Your task to perform on an android device: set the timer Image 0: 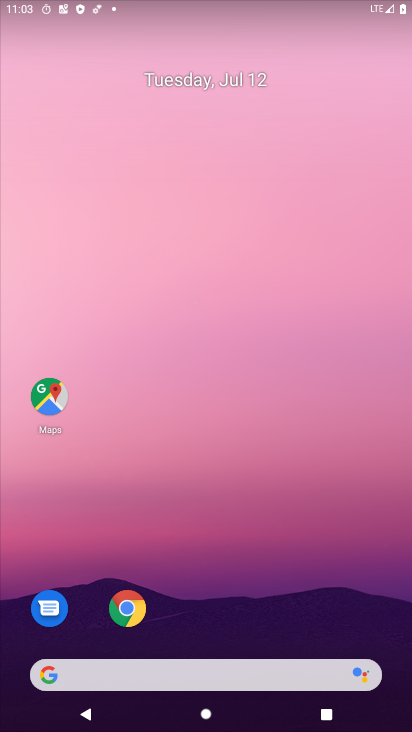
Step 0: drag from (296, 610) to (306, 127)
Your task to perform on an android device: set the timer Image 1: 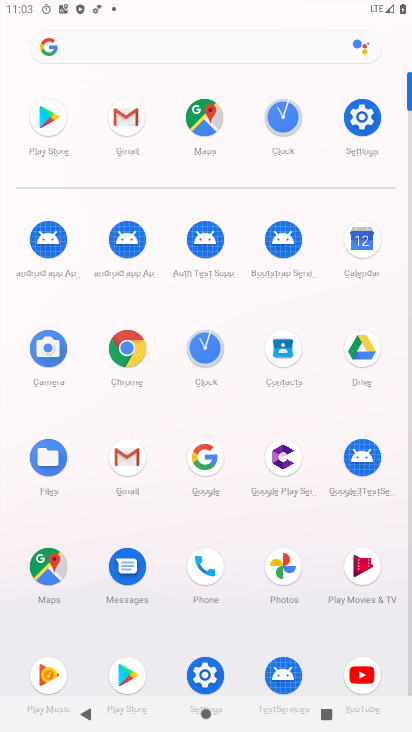
Step 1: click (281, 125)
Your task to perform on an android device: set the timer Image 2: 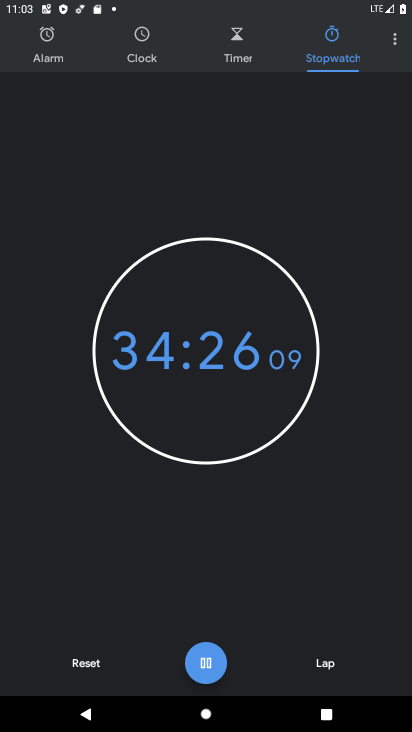
Step 2: click (217, 38)
Your task to perform on an android device: set the timer Image 3: 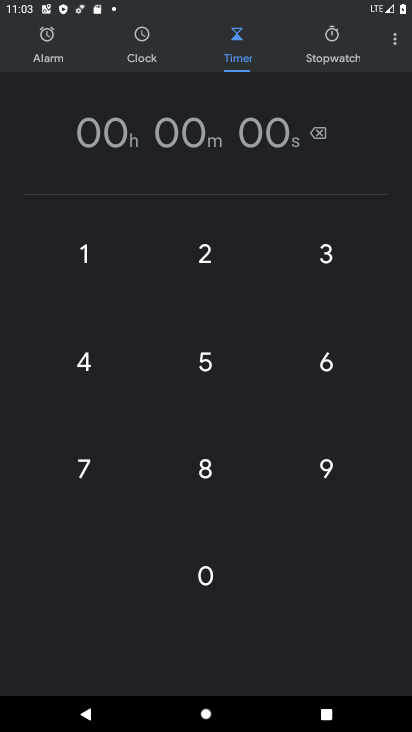
Step 3: click (100, 247)
Your task to perform on an android device: set the timer Image 4: 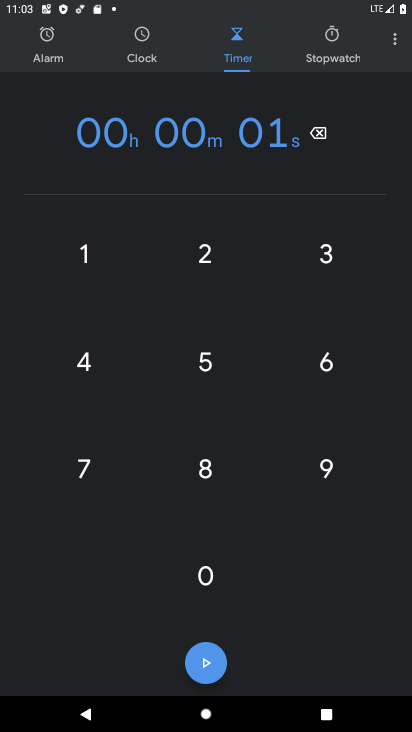
Step 4: click (207, 230)
Your task to perform on an android device: set the timer Image 5: 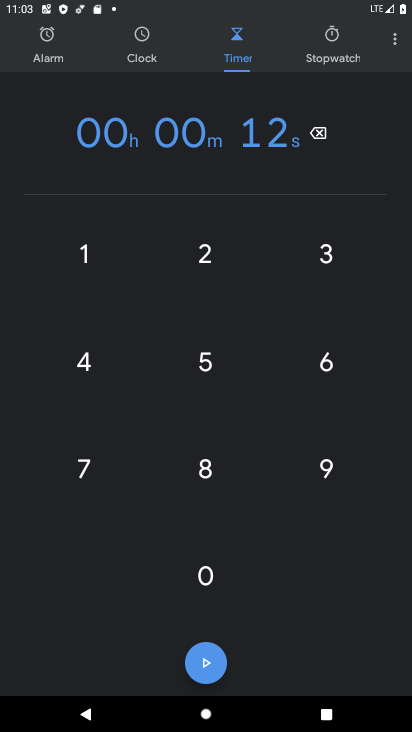
Step 5: click (198, 336)
Your task to perform on an android device: set the timer Image 6: 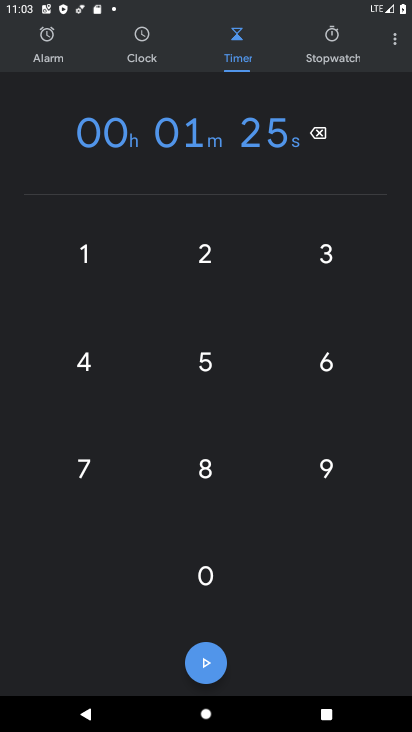
Step 6: click (104, 367)
Your task to perform on an android device: set the timer Image 7: 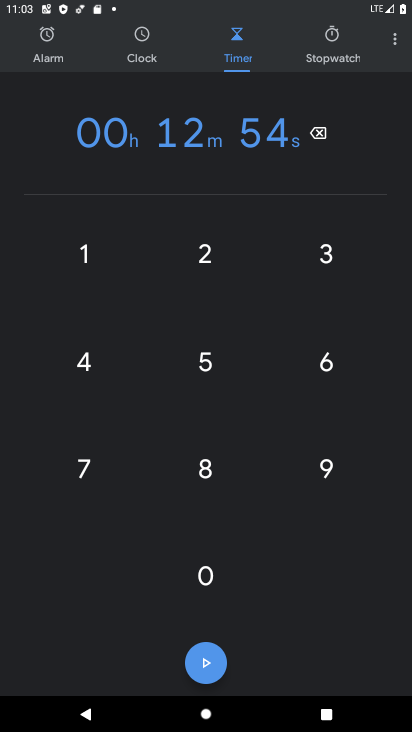
Step 7: click (188, 545)
Your task to perform on an android device: set the timer Image 8: 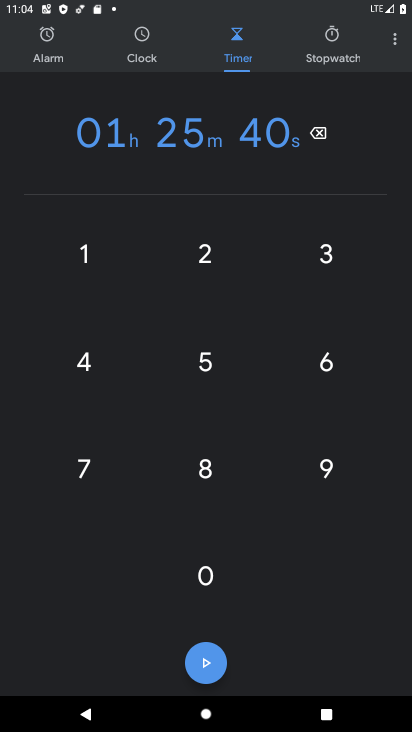
Step 8: click (206, 518)
Your task to perform on an android device: set the timer Image 9: 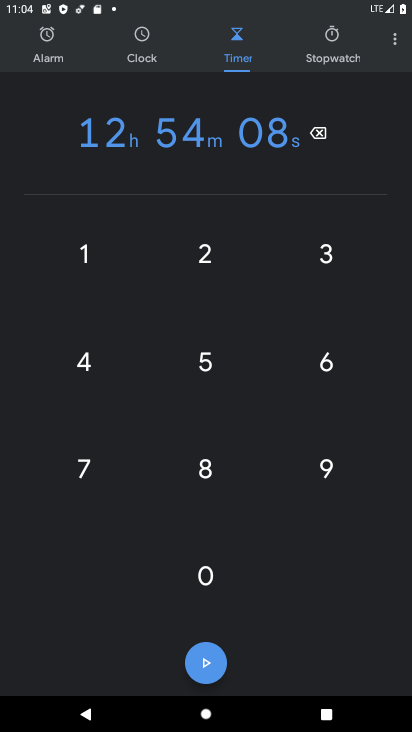
Step 9: click (205, 646)
Your task to perform on an android device: set the timer Image 10: 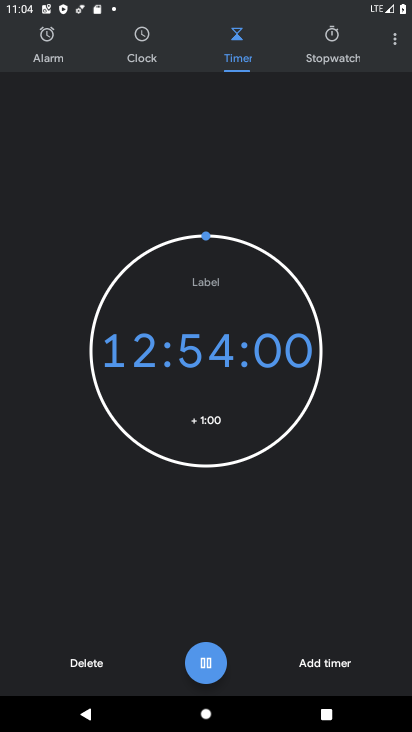
Step 10: task complete